Your task to perform on an android device: change the clock display to show seconds Image 0: 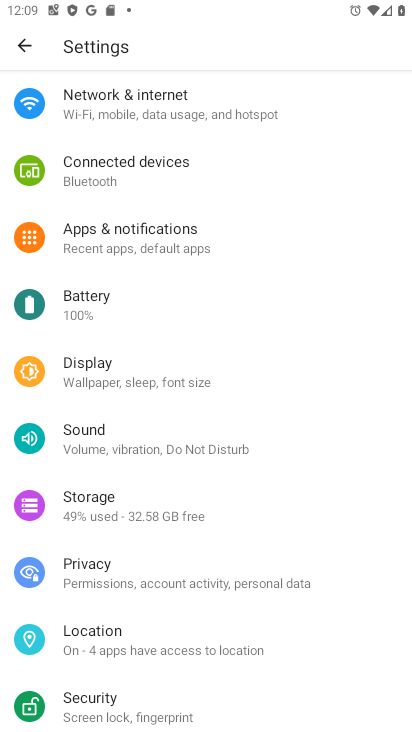
Step 0: press home button
Your task to perform on an android device: change the clock display to show seconds Image 1: 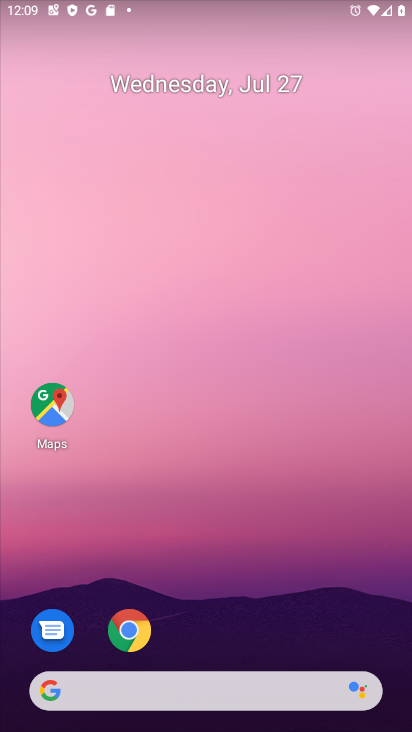
Step 1: drag from (191, 725) to (332, 1)
Your task to perform on an android device: change the clock display to show seconds Image 2: 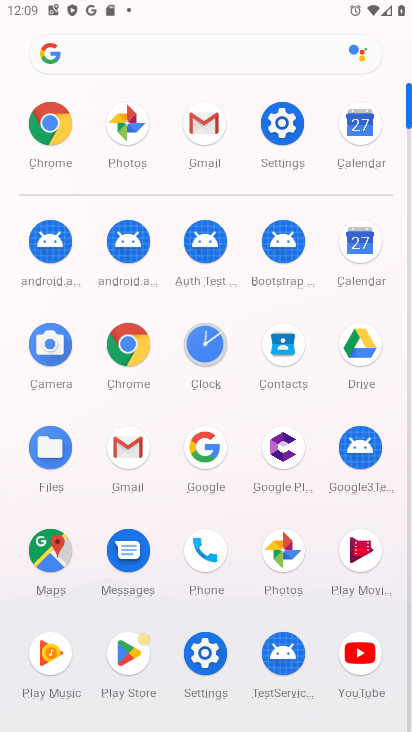
Step 2: click (187, 345)
Your task to perform on an android device: change the clock display to show seconds Image 3: 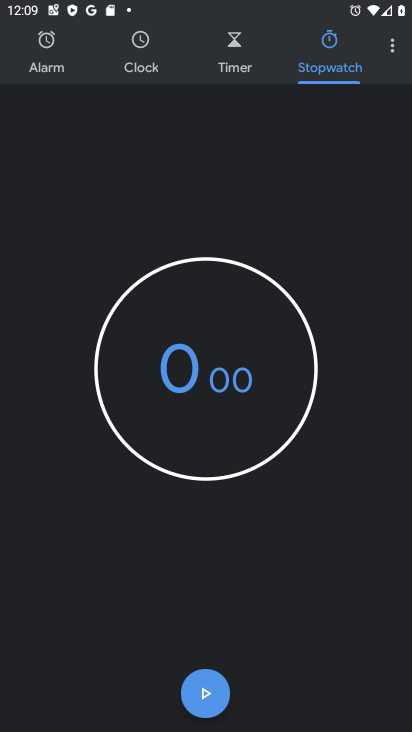
Step 3: click (394, 40)
Your task to perform on an android device: change the clock display to show seconds Image 4: 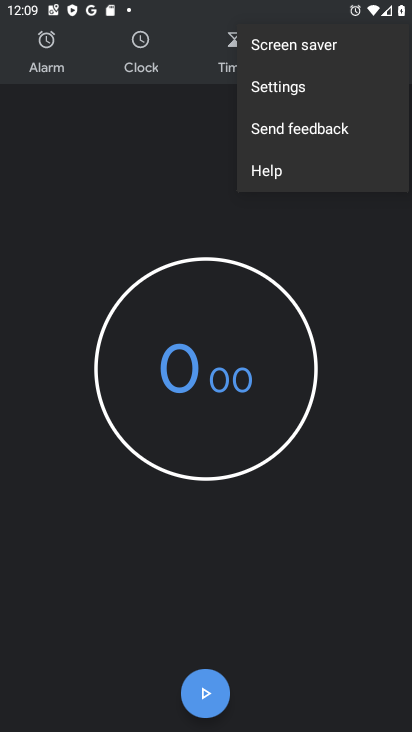
Step 4: click (347, 102)
Your task to perform on an android device: change the clock display to show seconds Image 5: 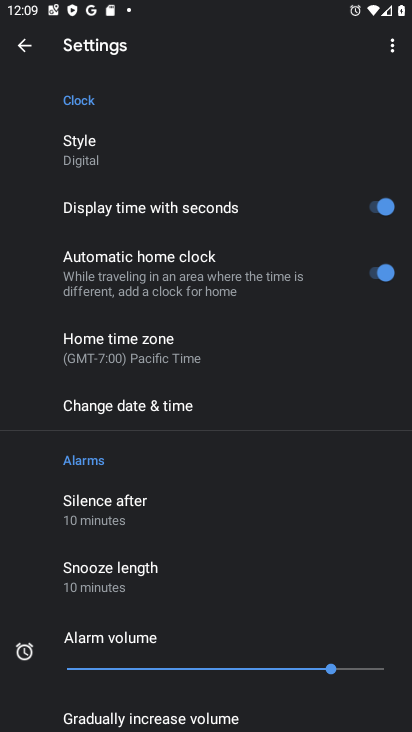
Step 5: click (393, 214)
Your task to perform on an android device: change the clock display to show seconds Image 6: 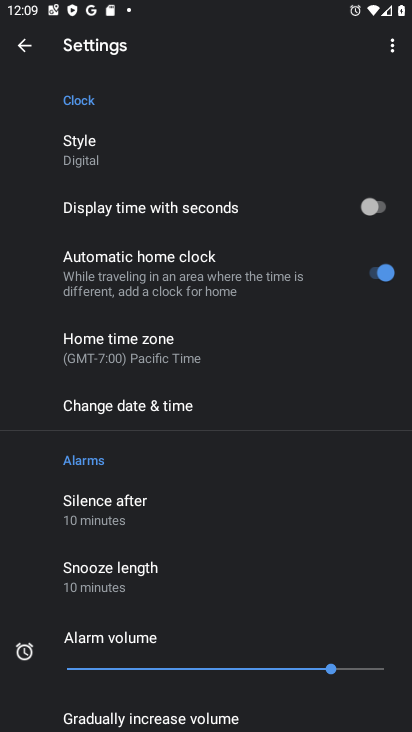
Step 6: task complete